Your task to perform on an android device: Show me popular games on the Play Store Image 0: 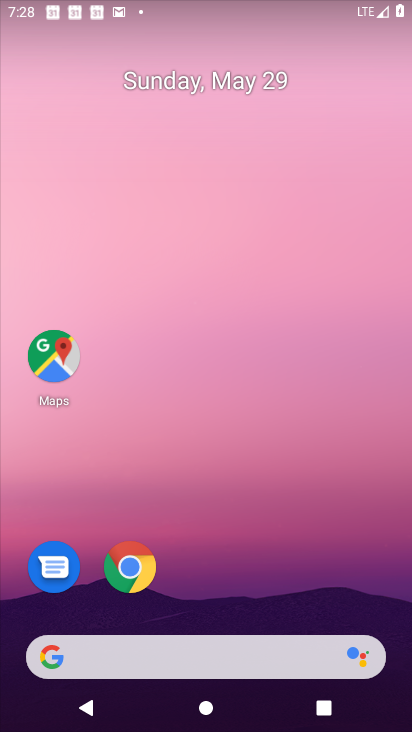
Step 0: drag from (268, 575) to (275, 212)
Your task to perform on an android device: Show me popular games on the Play Store Image 1: 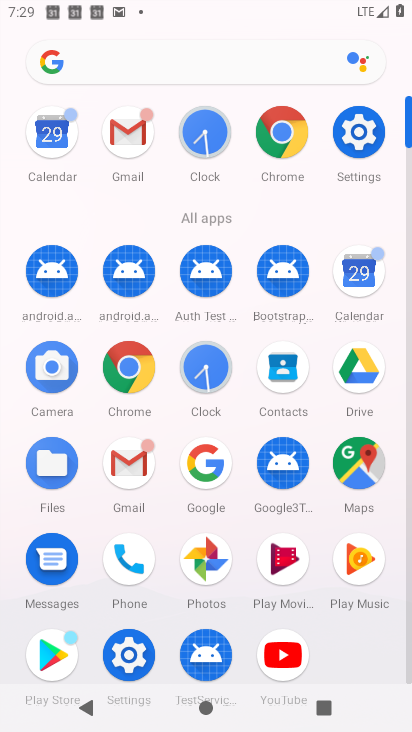
Step 1: click (58, 637)
Your task to perform on an android device: Show me popular games on the Play Store Image 2: 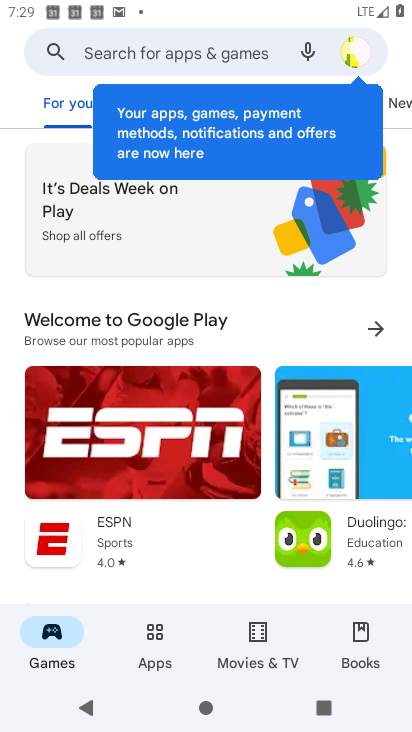
Step 2: task complete